Your task to perform on an android device: Go to Google Image 0: 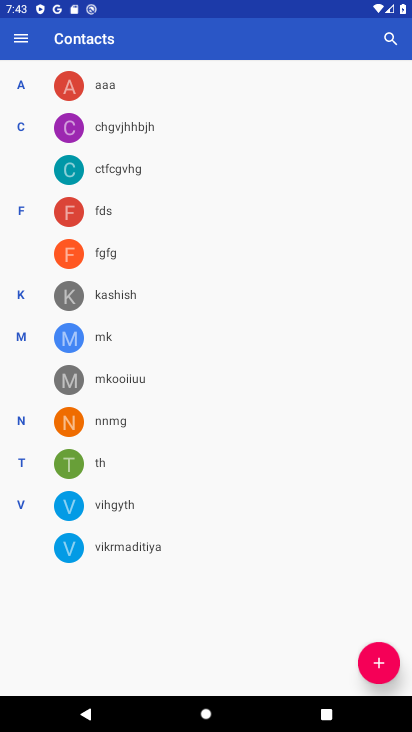
Step 0: press home button
Your task to perform on an android device: Go to Google Image 1: 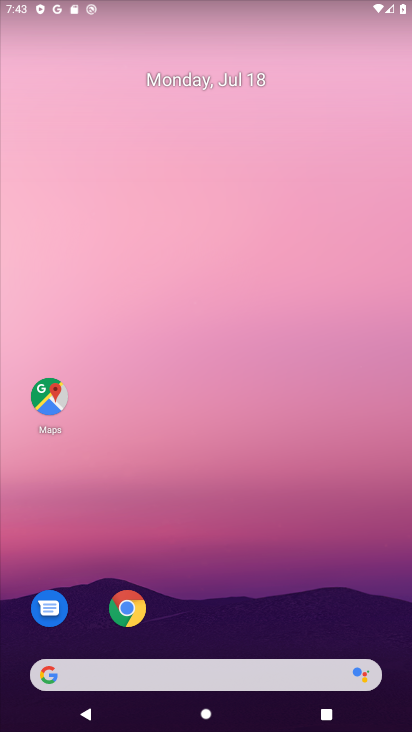
Step 1: drag from (231, 644) to (272, 62)
Your task to perform on an android device: Go to Google Image 2: 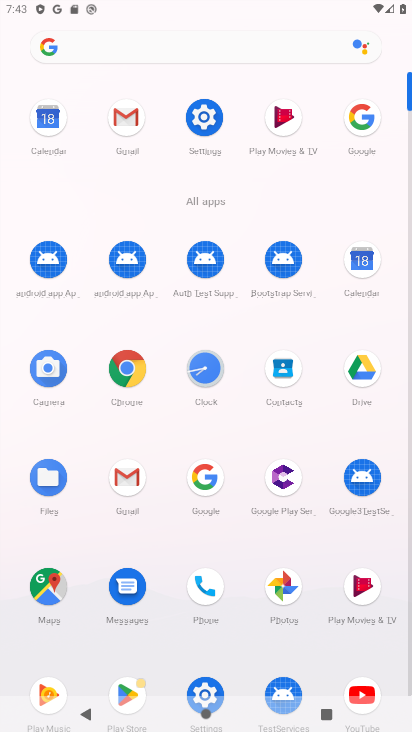
Step 2: click (206, 474)
Your task to perform on an android device: Go to Google Image 3: 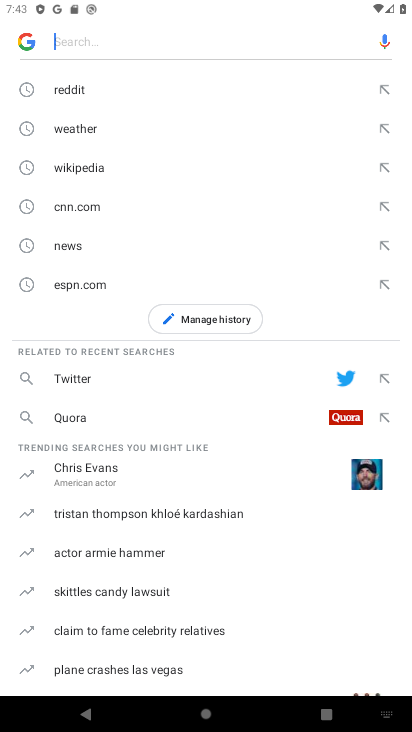
Step 3: task complete